Your task to perform on an android device: Go to privacy settings Image 0: 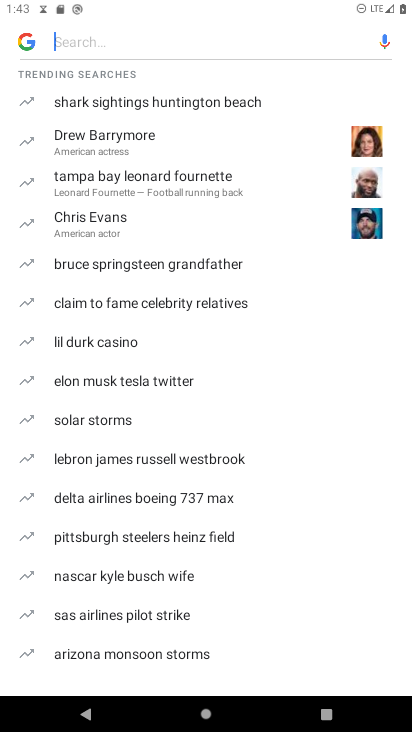
Step 0: press home button
Your task to perform on an android device: Go to privacy settings Image 1: 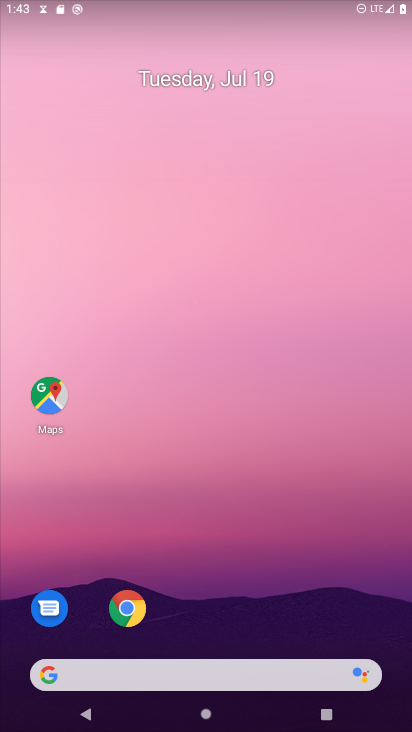
Step 1: drag from (264, 352) to (301, 0)
Your task to perform on an android device: Go to privacy settings Image 2: 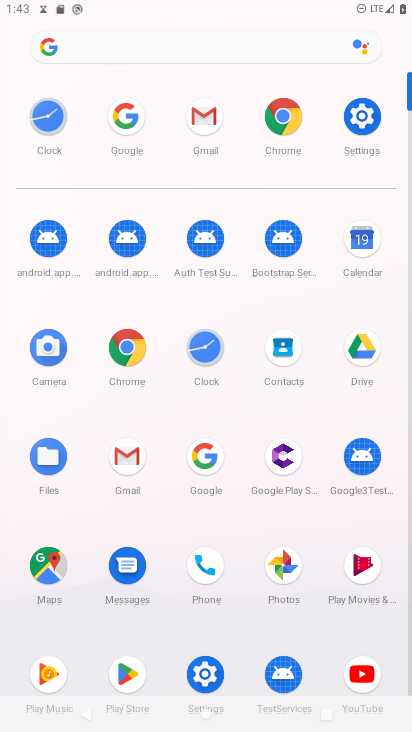
Step 2: click (352, 112)
Your task to perform on an android device: Go to privacy settings Image 3: 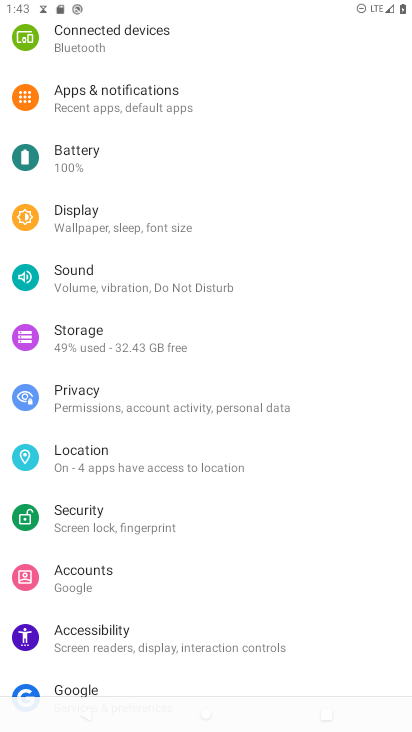
Step 3: click (135, 404)
Your task to perform on an android device: Go to privacy settings Image 4: 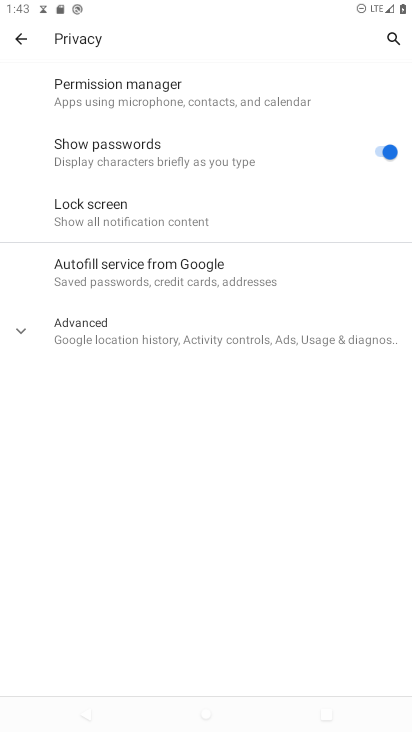
Step 4: task complete